Your task to perform on an android device: Add "sony triple a" to the cart on bestbuy Image 0: 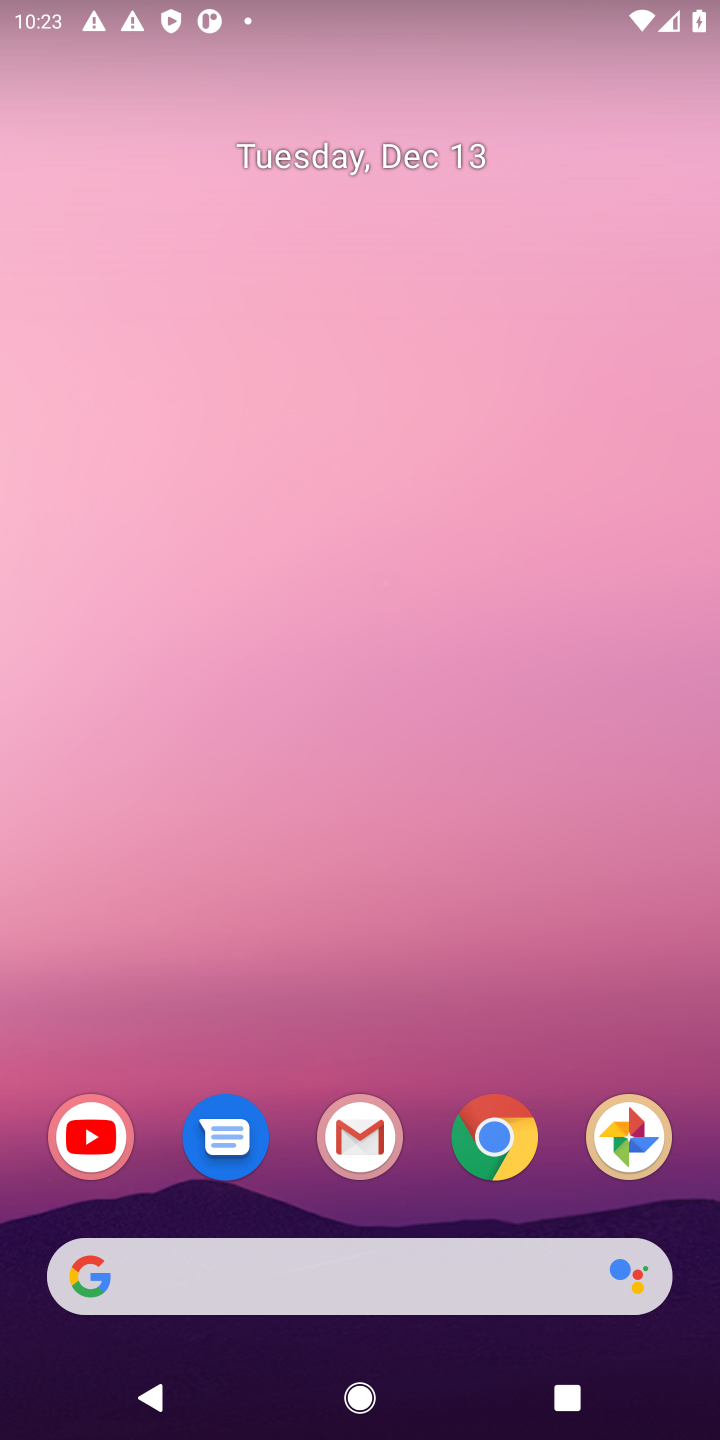
Step 0: click (508, 1134)
Your task to perform on an android device: Add "sony triple a" to the cart on bestbuy Image 1: 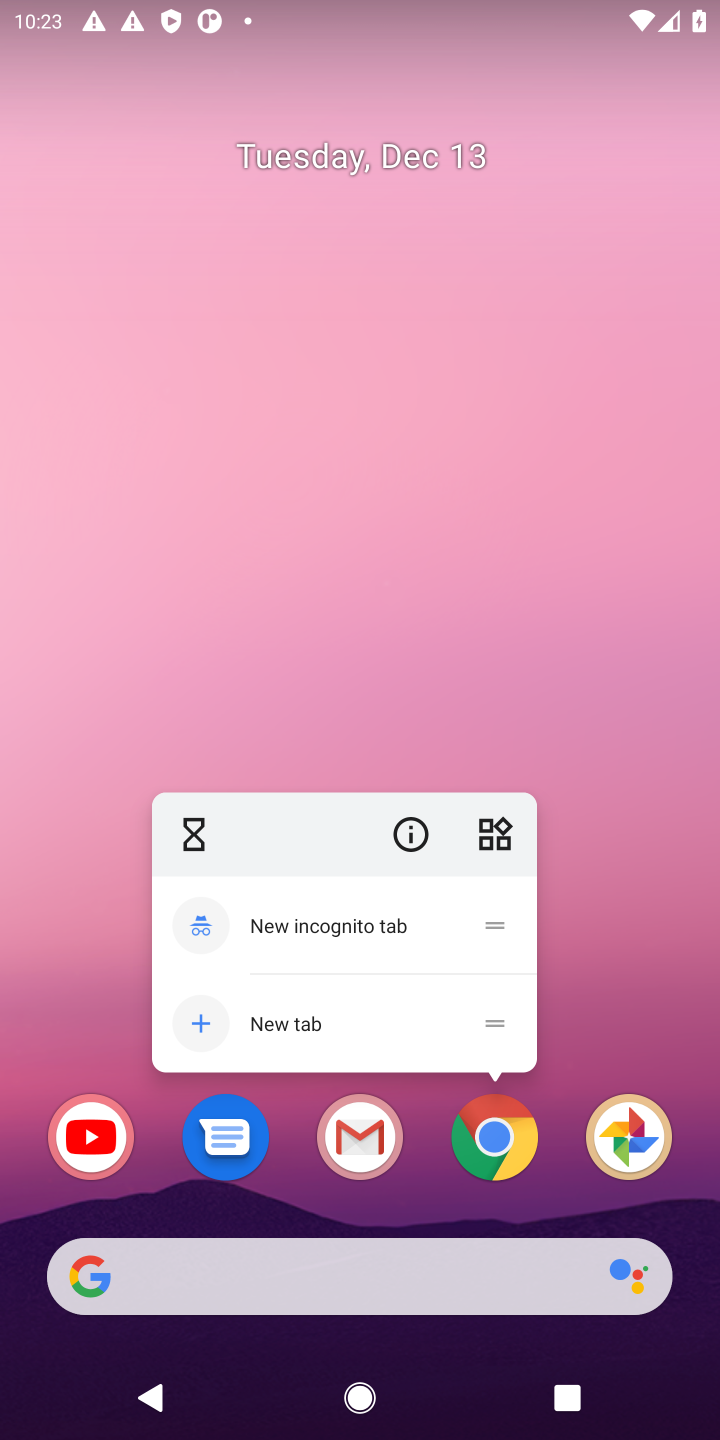
Step 1: click (512, 1122)
Your task to perform on an android device: Add "sony triple a" to the cart on bestbuy Image 2: 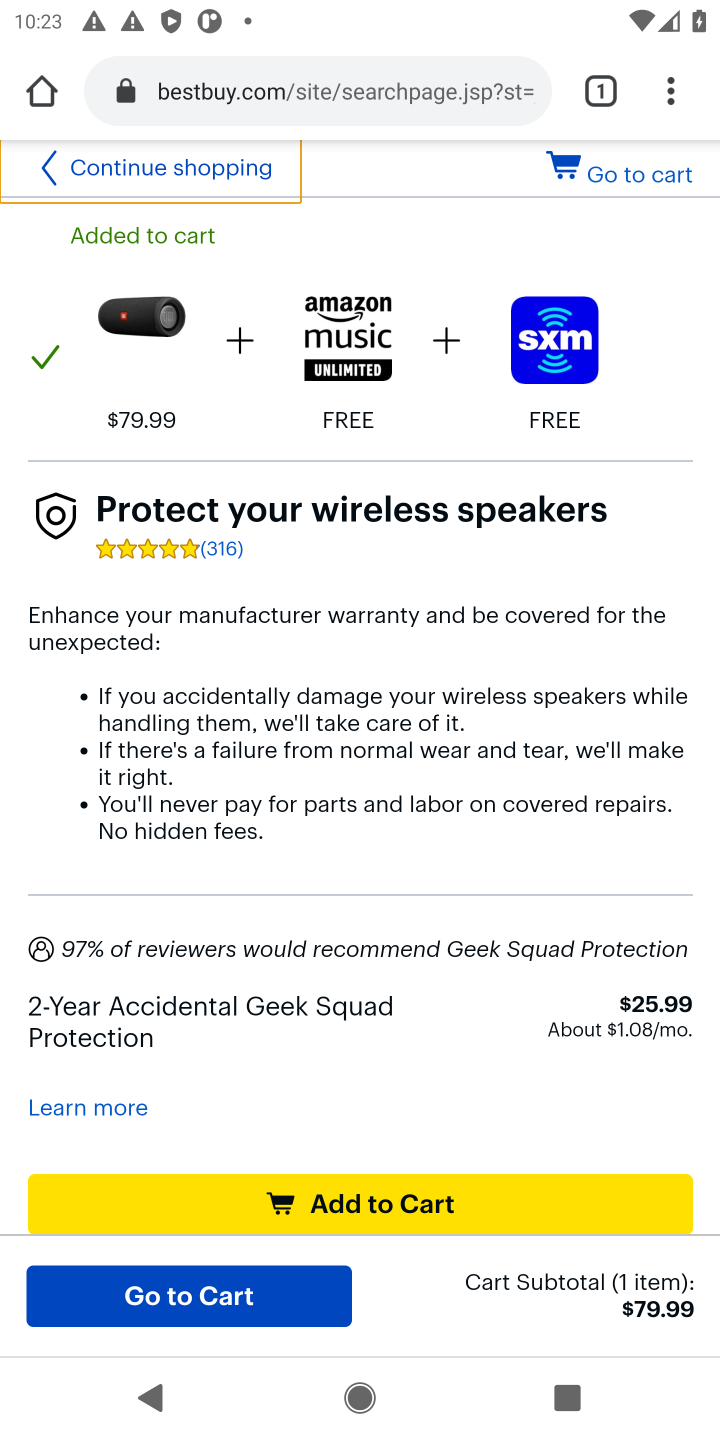
Step 2: click (154, 170)
Your task to perform on an android device: Add "sony triple a" to the cart on bestbuy Image 3: 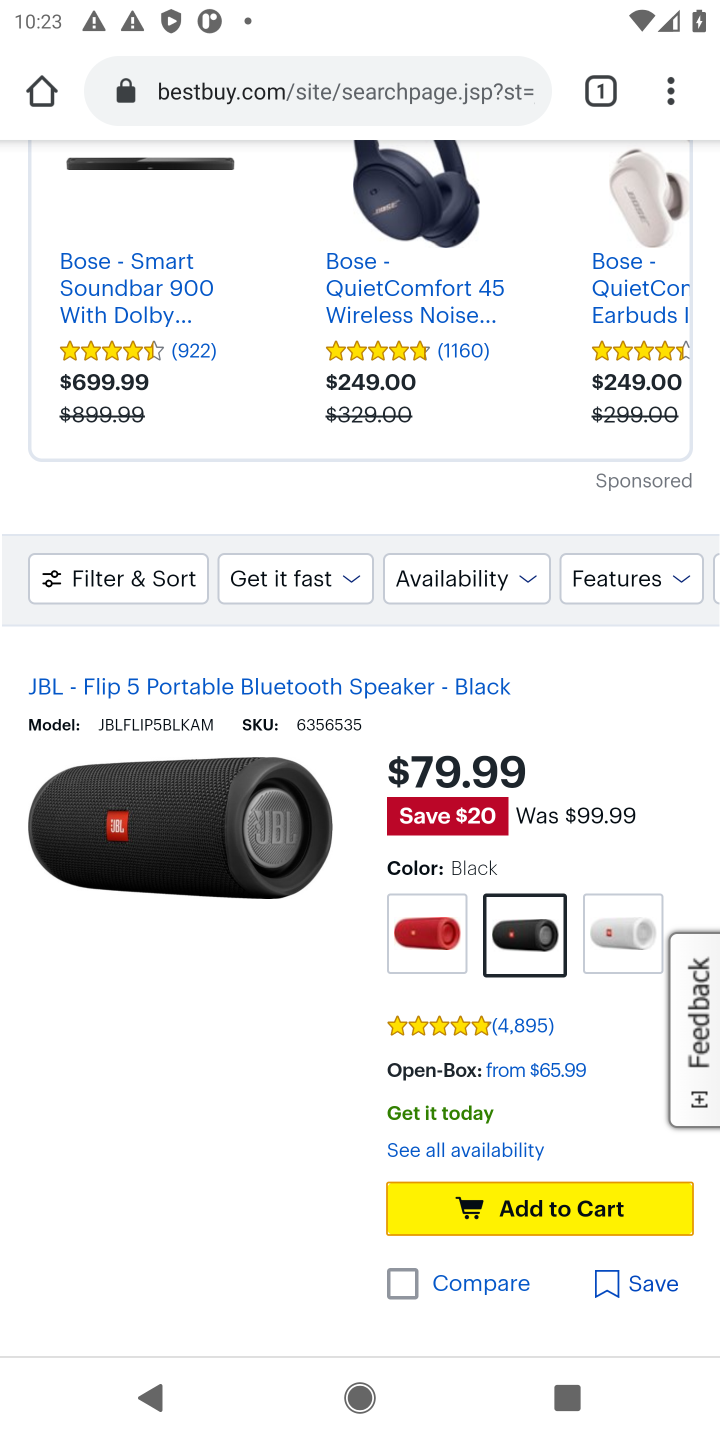
Step 3: drag from (425, 176) to (262, 934)
Your task to perform on an android device: Add "sony triple a" to the cart on bestbuy Image 4: 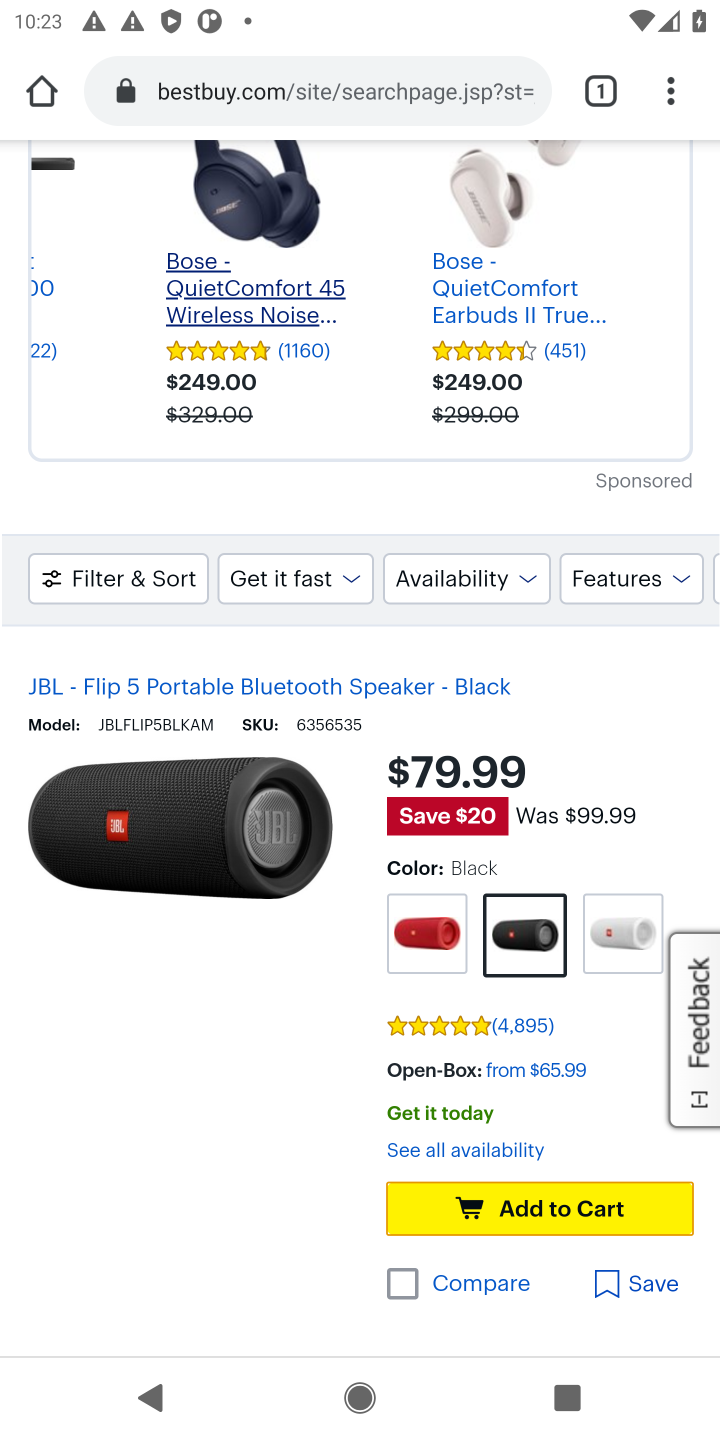
Step 4: drag from (387, 262) to (321, 983)
Your task to perform on an android device: Add "sony triple a" to the cart on bestbuy Image 5: 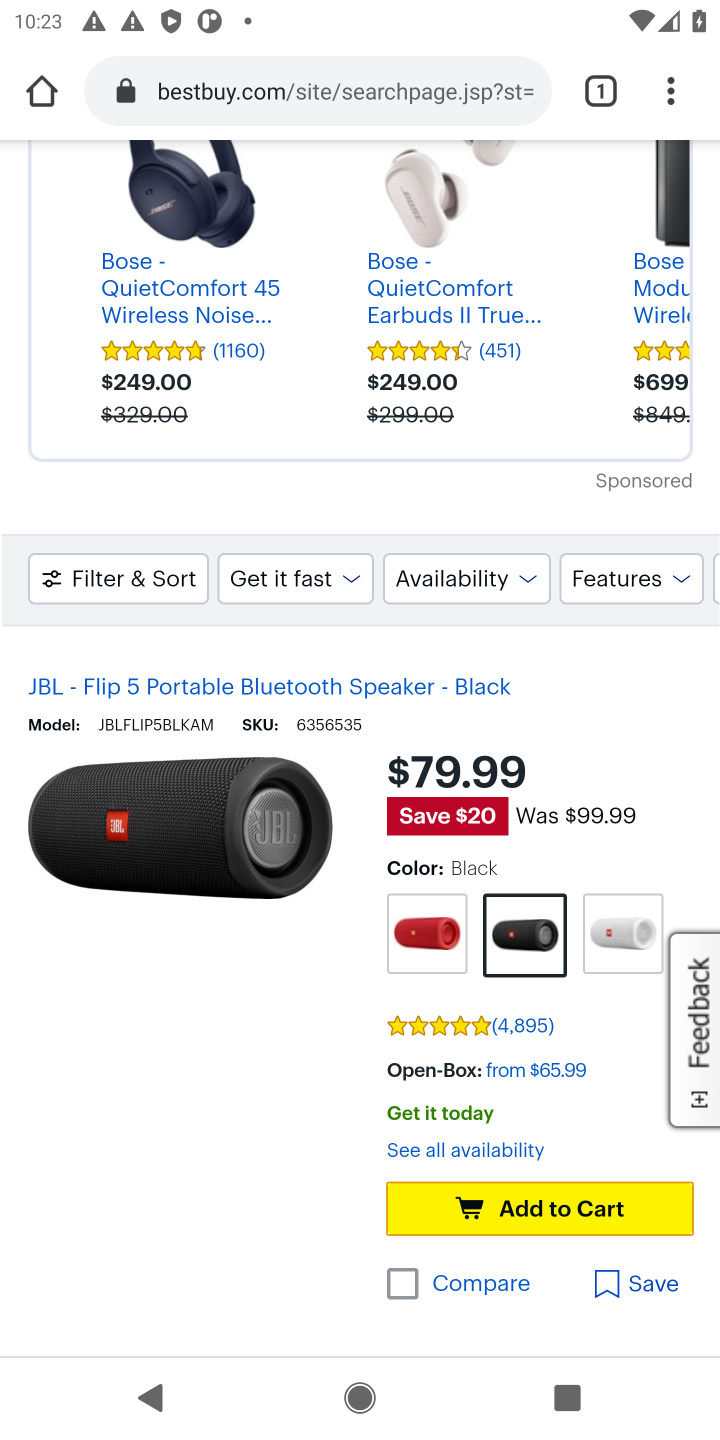
Step 5: drag from (529, 508) to (543, 1389)
Your task to perform on an android device: Add "sony triple a" to the cart on bestbuy Image 6: 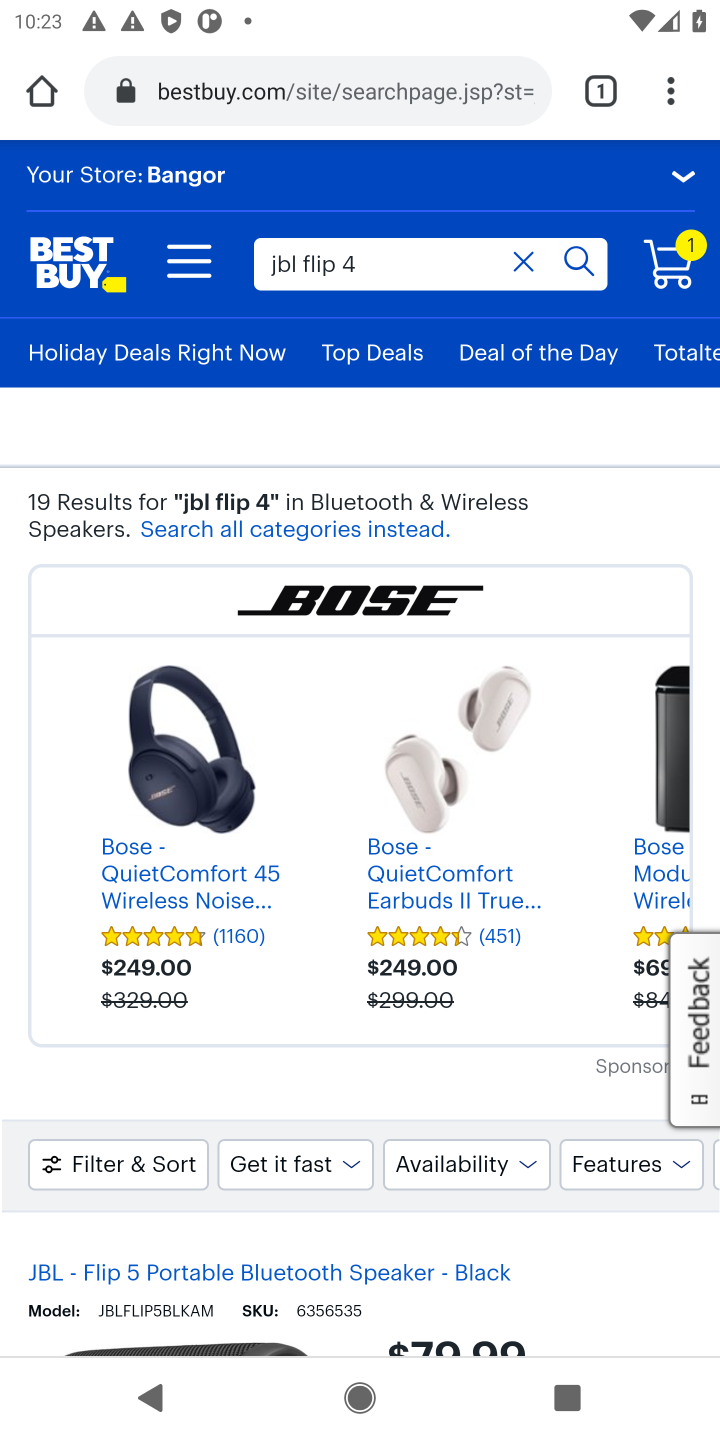
Step 6: click (526, 264)
Your task to perform on an android device: Add "sony triple a" to the cart on bestbuy Image 7: 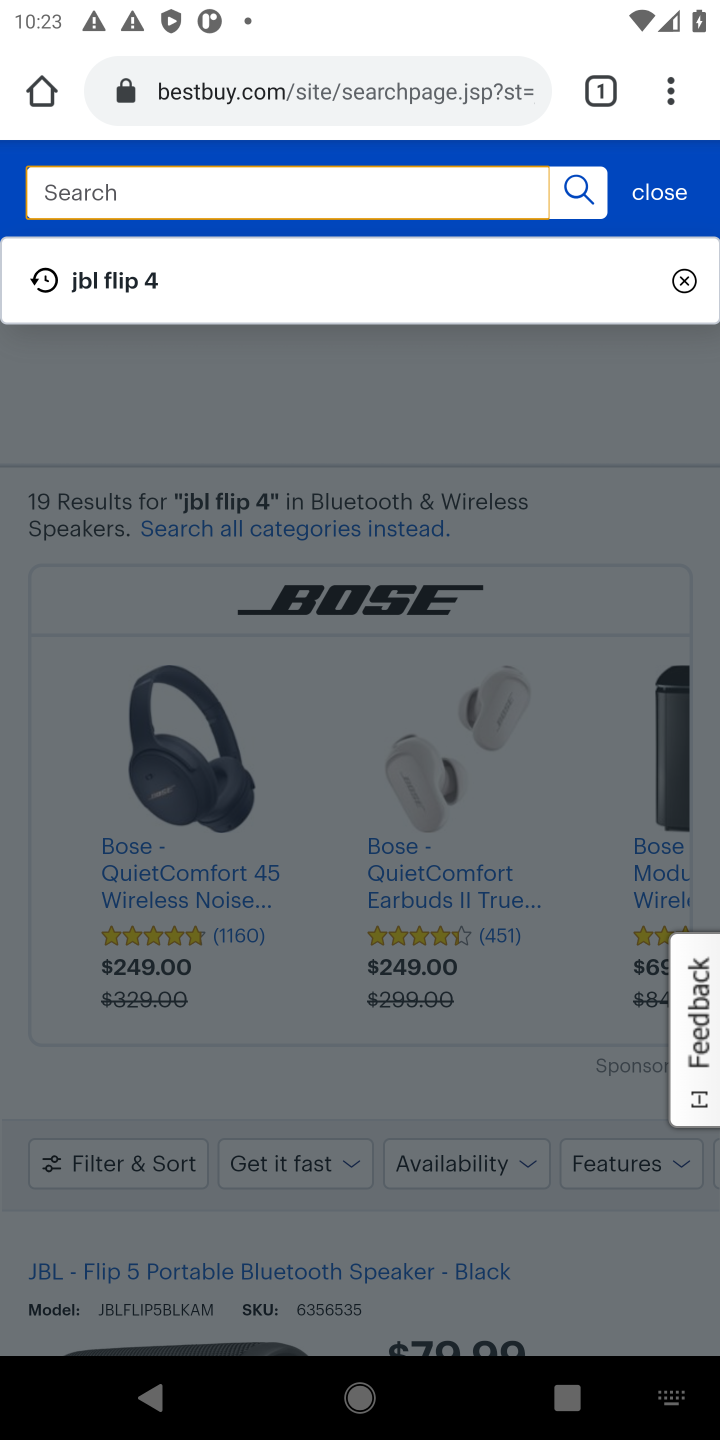
Step 7: type "sony triple a"
Your task to perform on an android device: Add "sony triple a" to the cart on bestbuy Image 8: 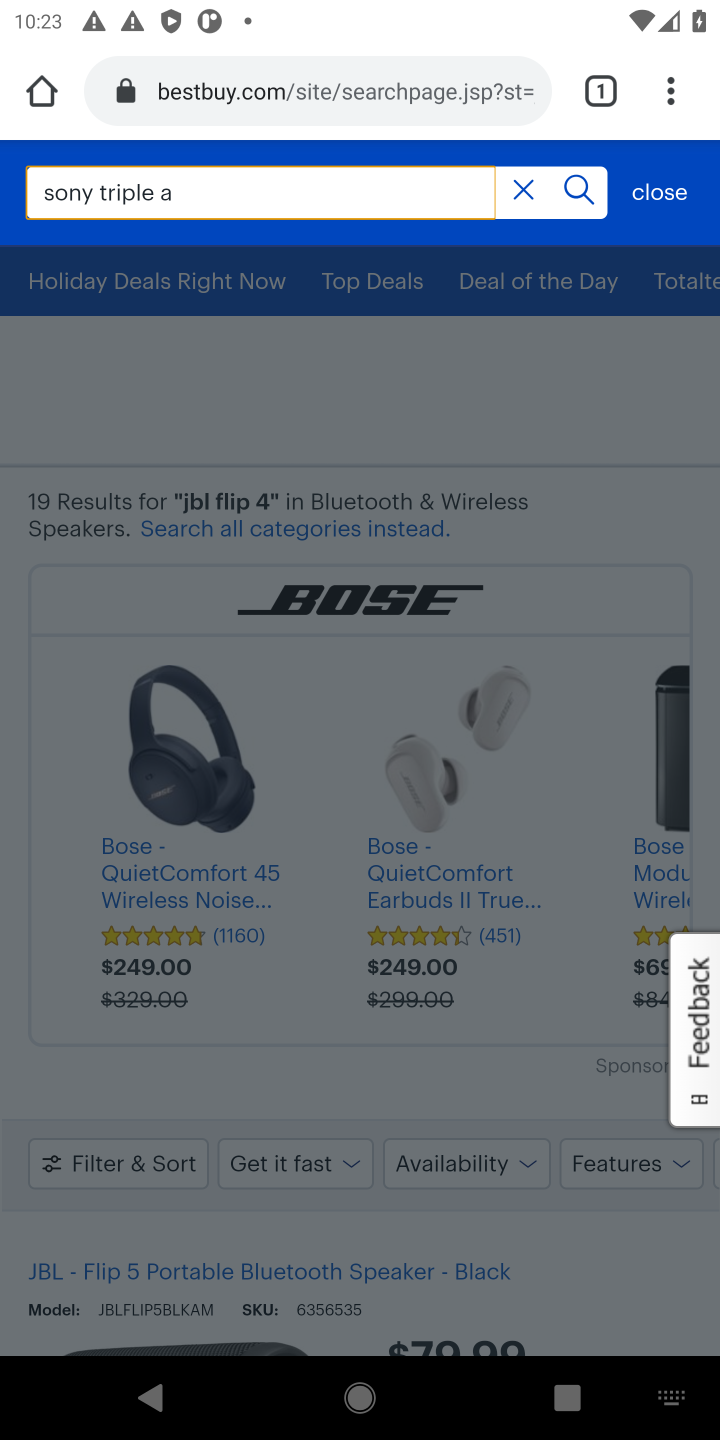
Step 8: click (587, 186)
Your task to perform on an android device: Add "sony triple a" to the cart on bestbuy Image 9: 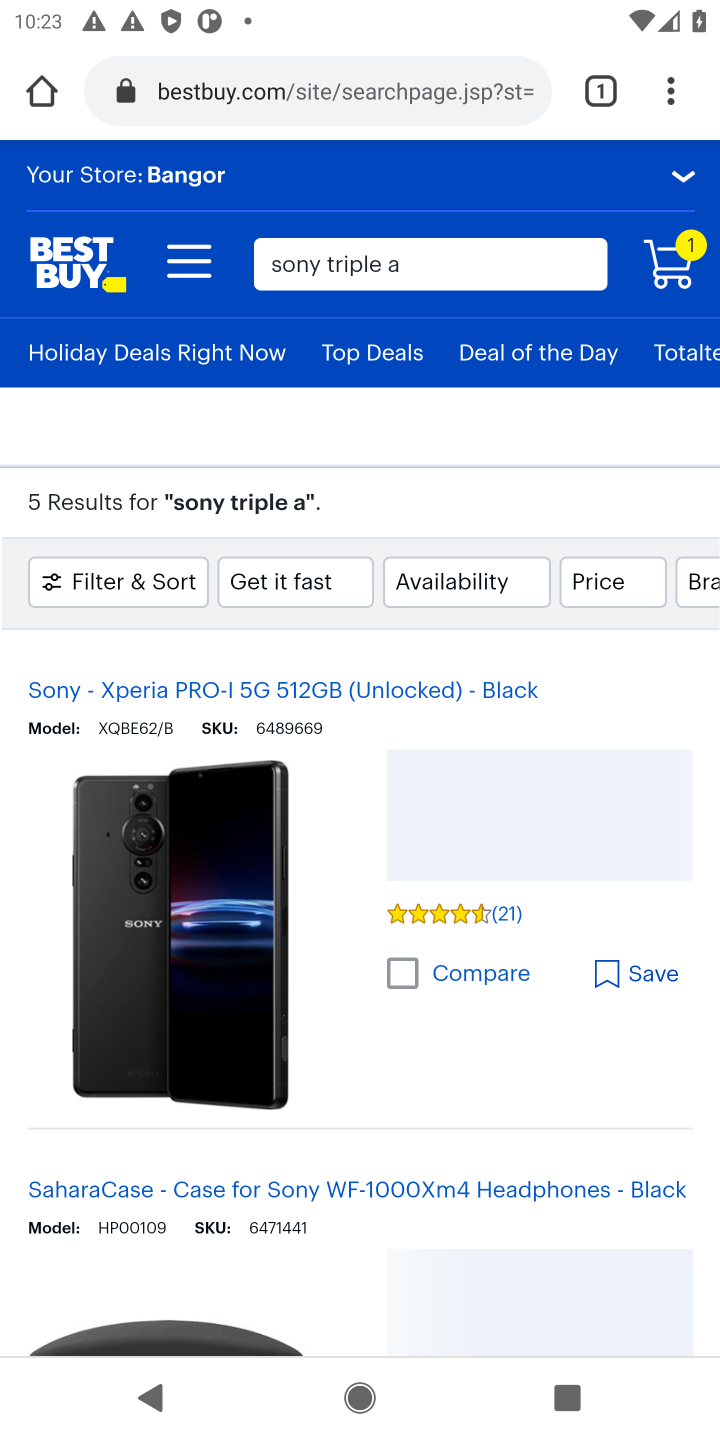
Step 9: task complete